Your task to perform on an android device: Go to Android settings Image 0: 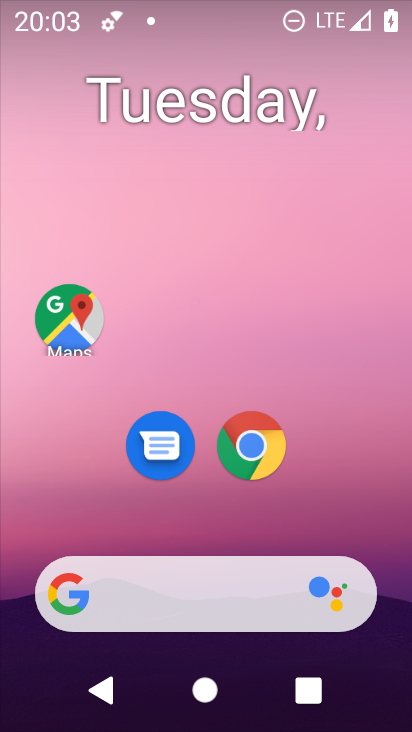
Step 0: drag from (211, 530) to (165, 212)
Your task to perform on an android device: Go to Android settings Image 1: 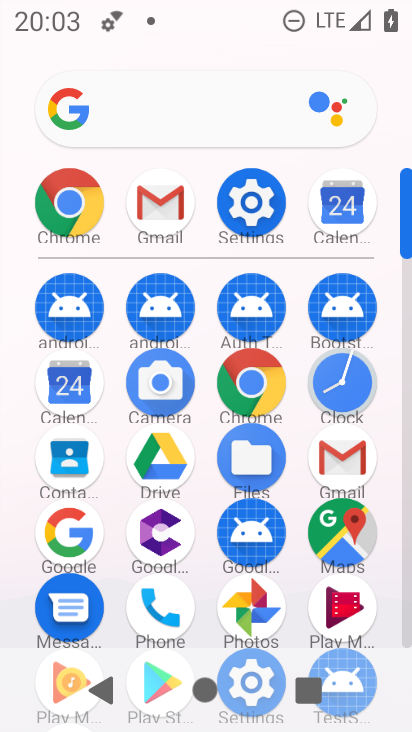
Step 1: drag from (130, 575) to (191, 3)
Your task to perform on an android device: Go to Android settings Image 2: 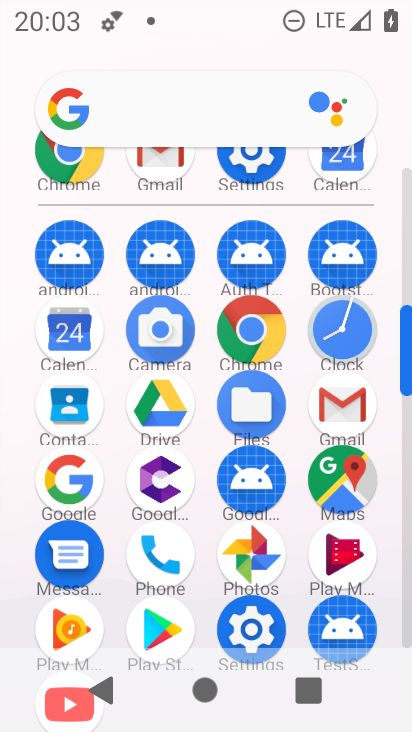
Step 2: click (243, 637)
Your task to perform on an android device: Go to Android settings Image 3: 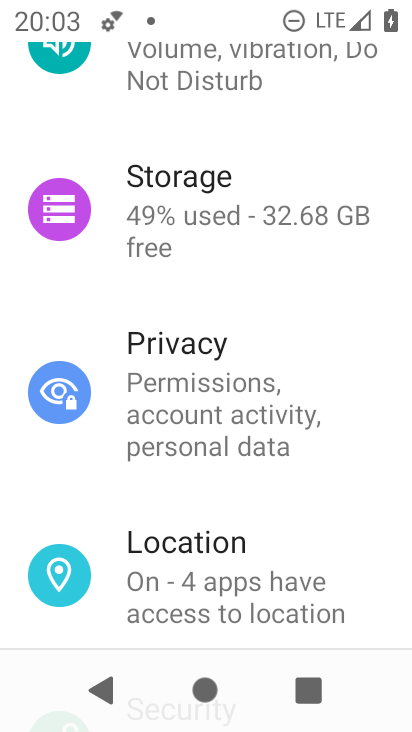
Step 3: drag from (198, 226) to (196, 3)
Your task to perform on an android device: Go to Android settings Image 4: 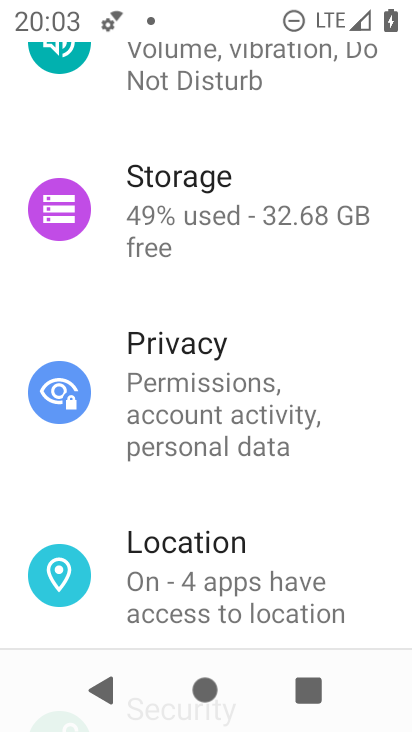
Step 4: drag from (127, 607) to (152, 294)
Your task to perform on an android device: Go to Android settings Image 5: 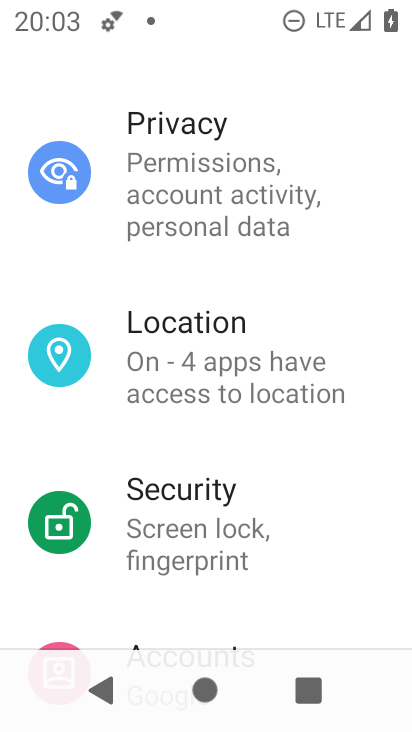
Step 5: drag from (166, 568) to (164, 126)
Your task to perform on an android device: Go to Android settings Image 6: 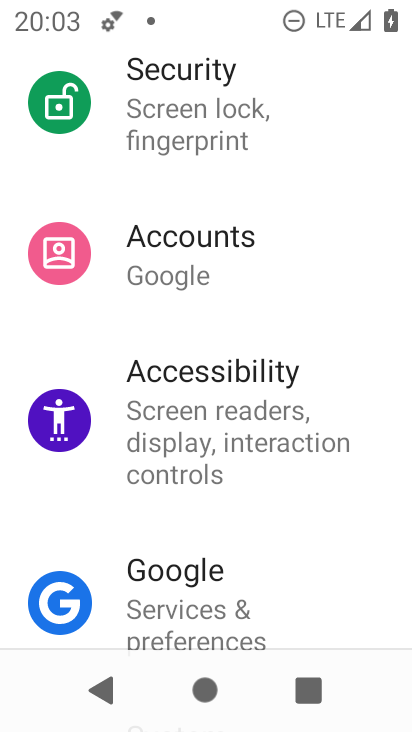
Step 6: drag from (200, 555) to (221, 179)
Your task to perform on an android device: Go to Android settings Image 7: 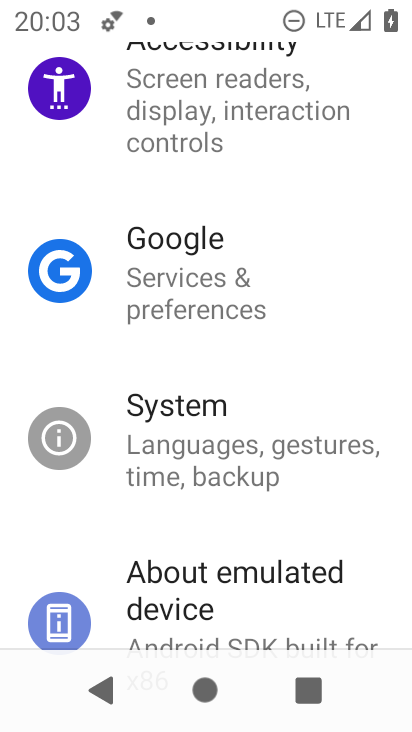
Step 7: click (191, 614)
Your task to perform on an android device: Go to Android settings Image 8: 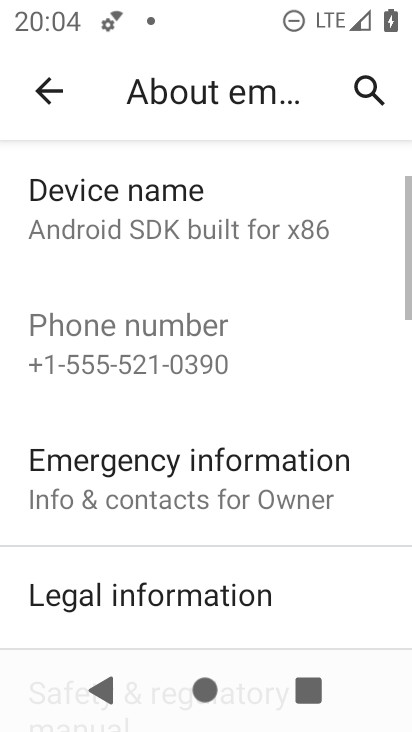
Step 8: drag from (130, 531) to (130, 337)
Your task to perform on an android device: Go to Android settings Image 9: 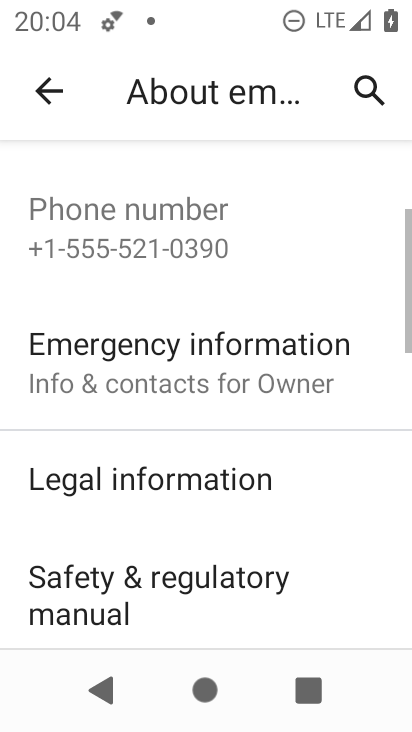
Step 9: drag from (164, 618) to (192, 363)
Your task to perform on an android device: Go to Android settings Image 10: 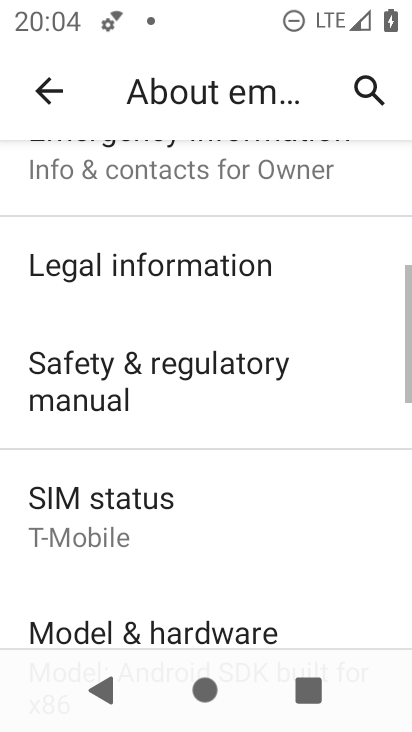
Step 10: drag from (167, 596) to (187, 424)
Your task to perform on an android device: Go to Android settings Image 11: 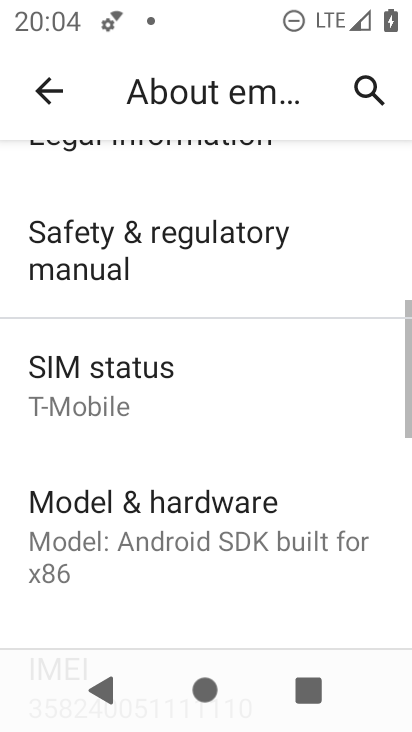
Step 11: click (187, 418)
Your task to perform on an android device: Go to Android settings Image 12: 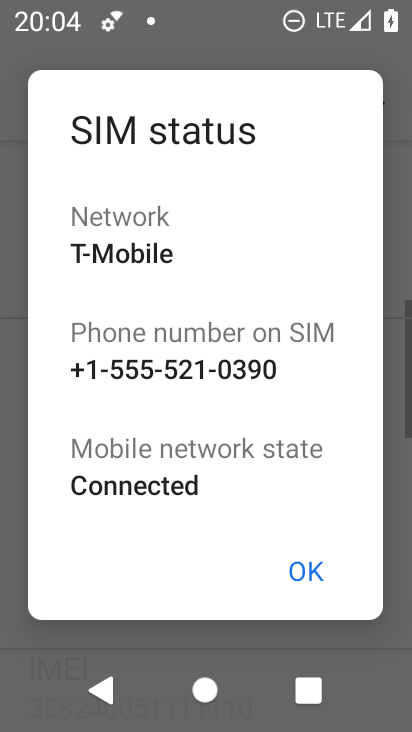
Step 12: click (307, 585)
Your task to perform on an android device: Go to Android settings Image 13: 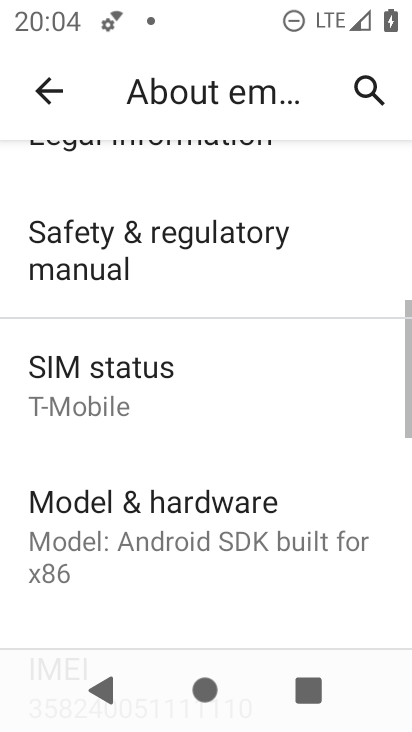
Step 13: task complete